Your task to perform on an android device: Do I have any events today? Image 0: 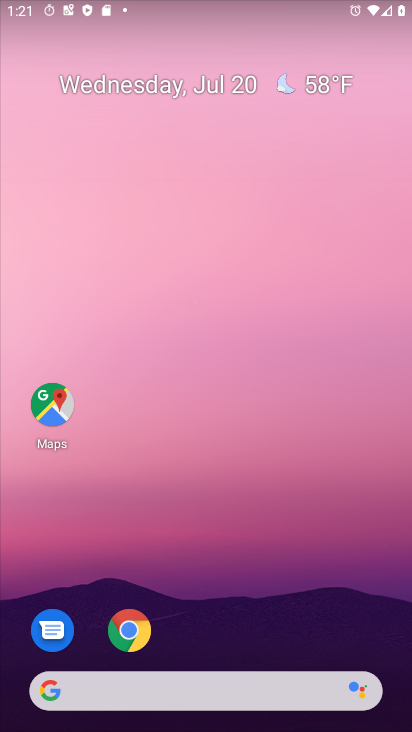
Step 0: drag from (164, 687) to (294, 105)
Your task to perform on an android device: Do I have any events today? Image 1: 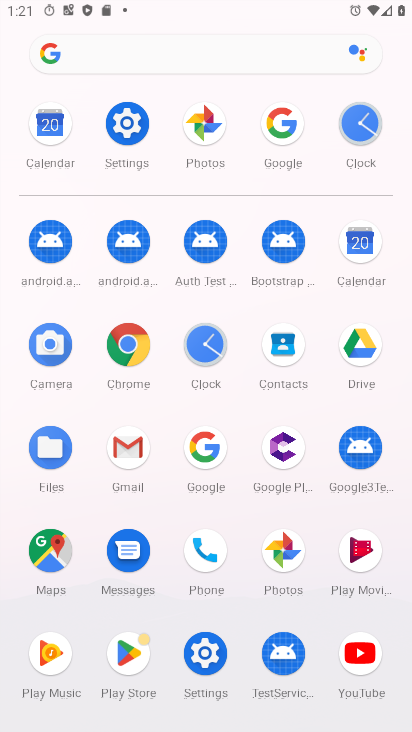
Step 1: click (356, 246)
Your task to perform on an android device: Do I have any events today? Image 2: 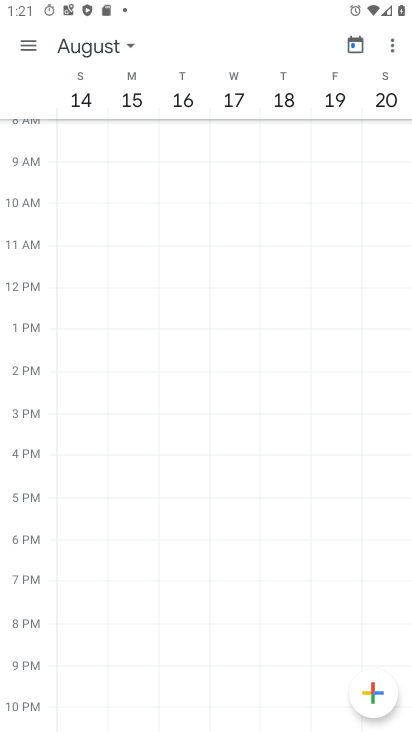
Step 2: click (96, 50)
Your task to perform on an android device: Do I have any events today? Image 3: 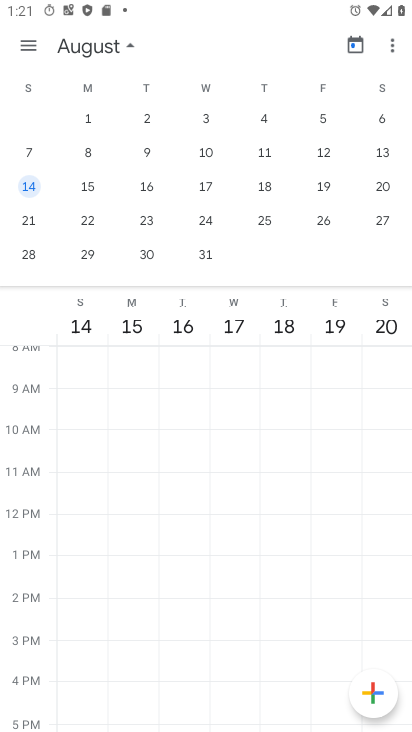
Step 3: drag from (59, 151) to (393, 227)
Your task to perform on an android device: Do I have any events today? Image 4: 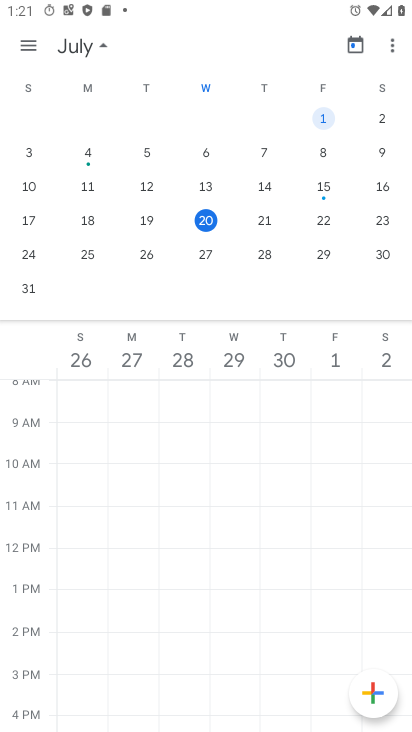
Step 4: click (201, 223)
Your task to perform on an android device: Do I have any events today? Image 5: 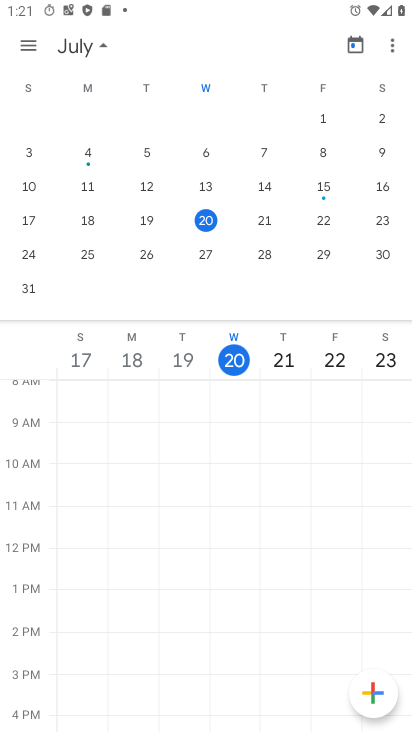
Step 5: click (26, 46)
Your task to perform on an android device: Do I have any events today? Image 6: 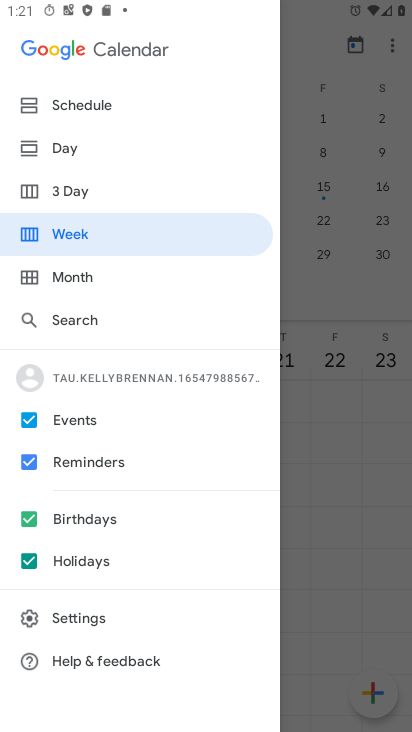
Step 6: click (62, 150)
Your task to perform on an android device: Do I have any events today? Image 7: 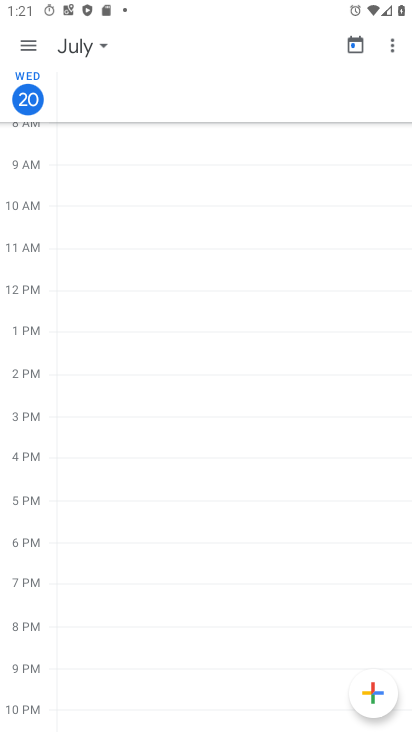
Step 7: click (34, 41)
Your task to perform on an android device: Do I have any events today? Image 8: 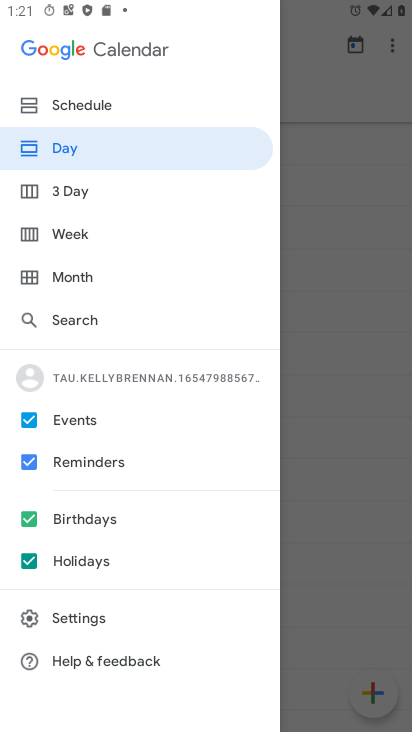
Step 8: click (83, 107)
Your task to perform on an android device: Do I have any events today? Image 9: 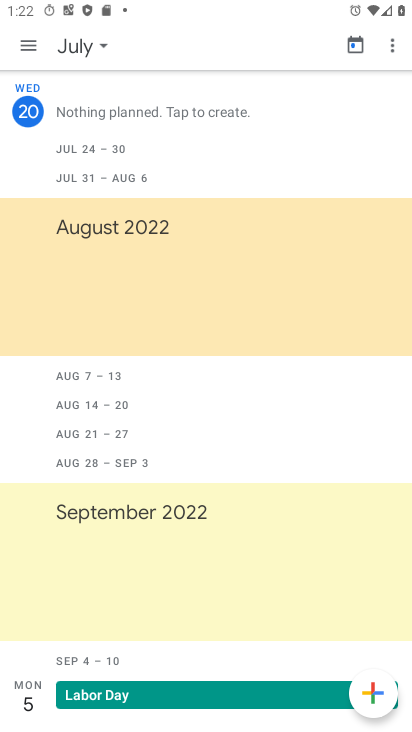
Step 9: task complete